Your task to perform on an android device: Open Chrome and go to settings Image 0: 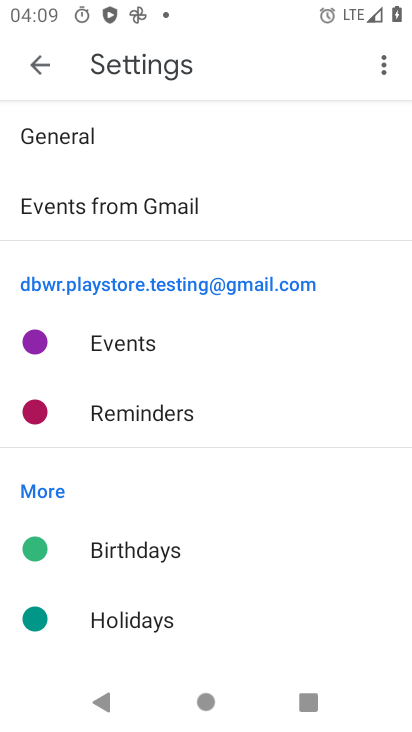
Step 0: press home button
Your task to perform on an android device: Open Chrome and go to settings Image 1: 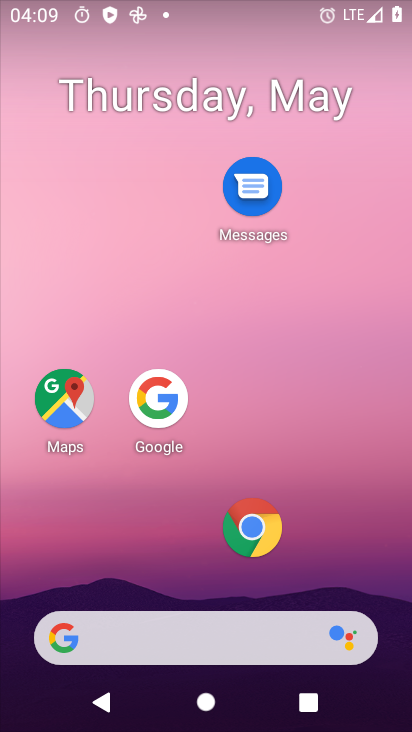
Step 1: drag from (200, 575) to (174, 375)
Your task to perform on an android device: Open Chrome and go to settings Image 2: 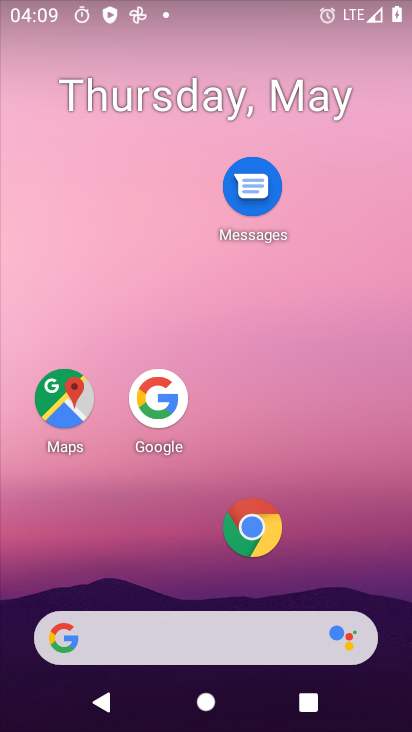
Step 2: drag from (197, 593) to (278, 262)
Your task to perform on an android device: Open Chrome and go to settings Image 3: 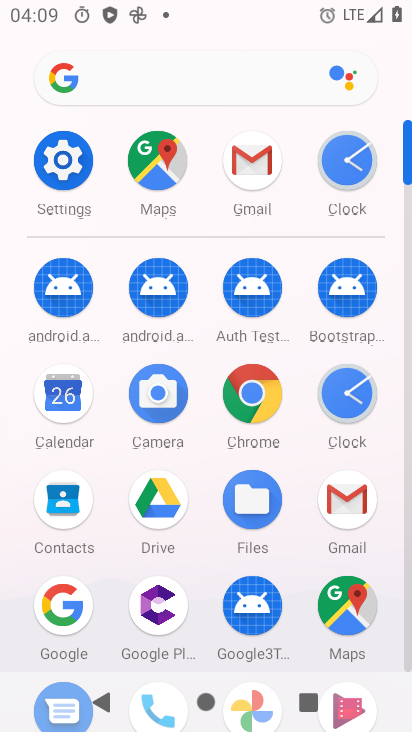
Step 3: click (240, 393)
Your task to perform on an android device: Open Chrome and go to settings Image 4: 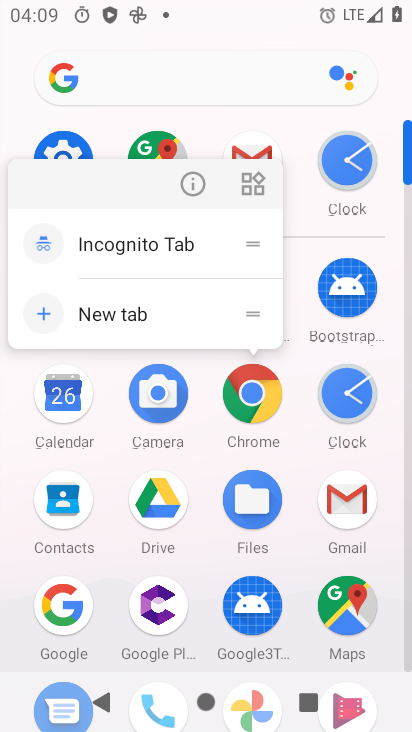
Step 4: click (191, 192)
Your task to perform on an android device: Open Chrome and go to settings Image 5: 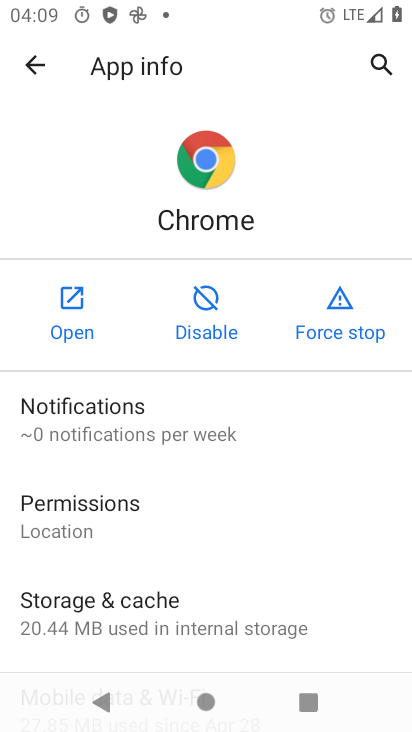
Step 5: click (80, 289)
Your task to perform on an android device: Open Chrome and go to settings Image 6: 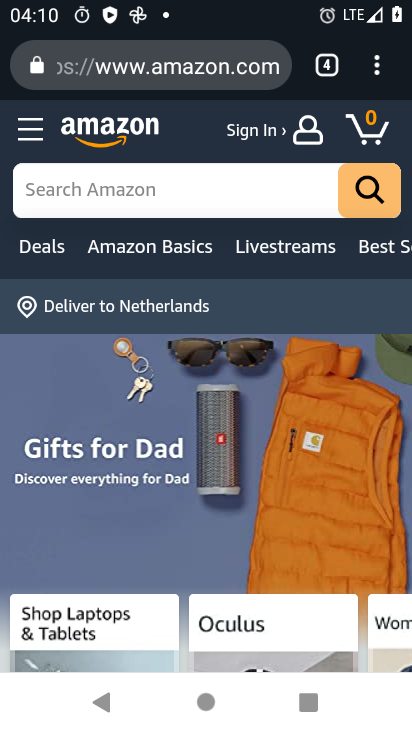
Step 6: click (381, 54)
Your task to perform on an android device: Open Chrome and go to settings Image 7: 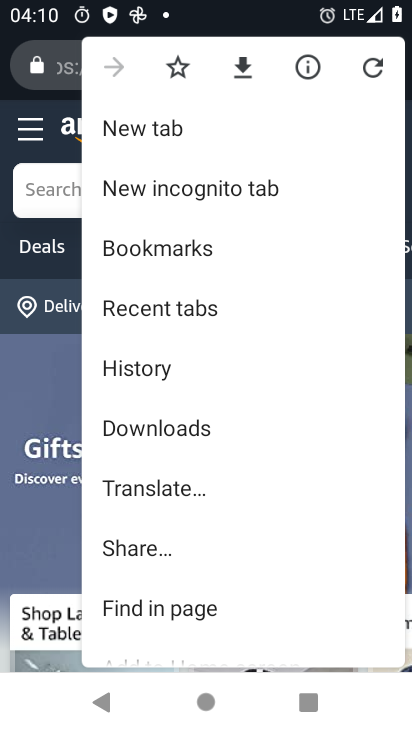
Step 7: drag from (177, 548) to (262, 5)
Your task to perform on an android device: Open Chrome and go to settings Image 8: 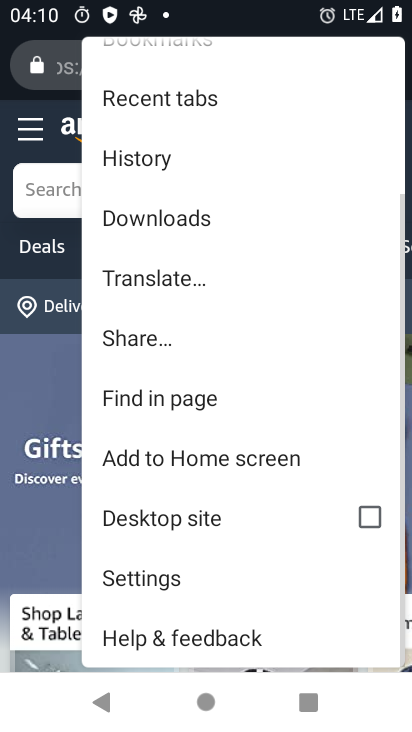
Step 8: click (159, 574)
Your task to perform on an android device: Open Chrome and go to settings Image 9: 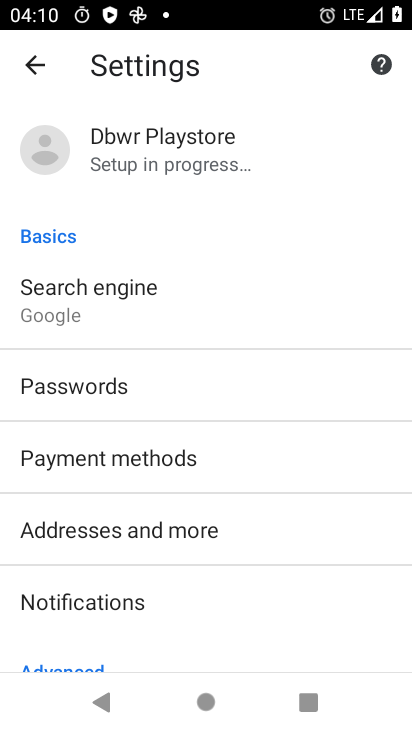
Step 9: task complete